Your task to perform on an android device: Toggle the flashlight Image 0: 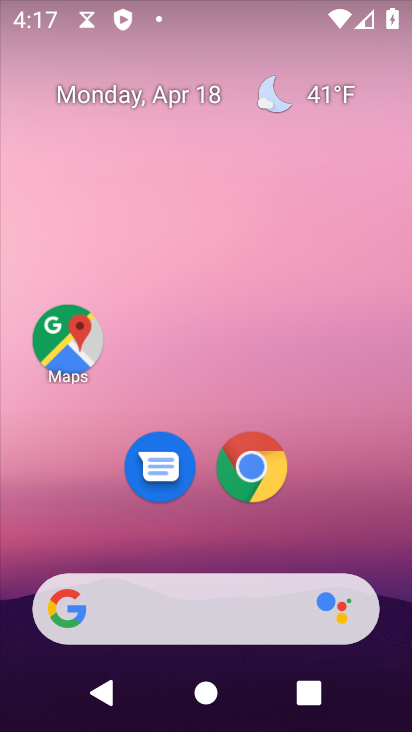
Step 0: drag from (199, 546) to (232, 154)
Your task to perform on an android device: Toggle the flashlight Image 1: 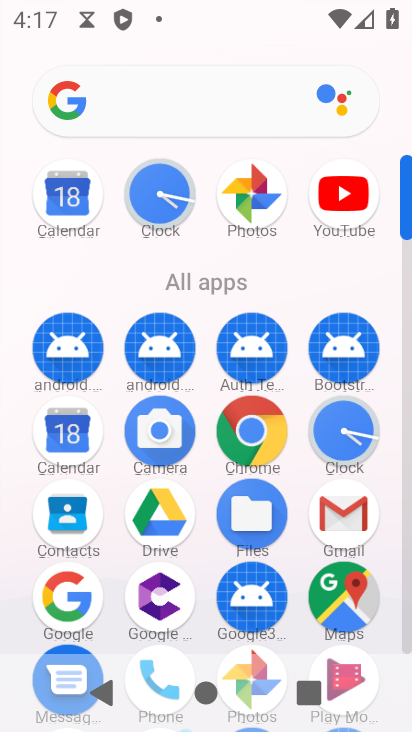
Step 1: drag from (197, 550) to (213, 284)
Your task to perform on an android device: Toggle the flashlight Image 2: 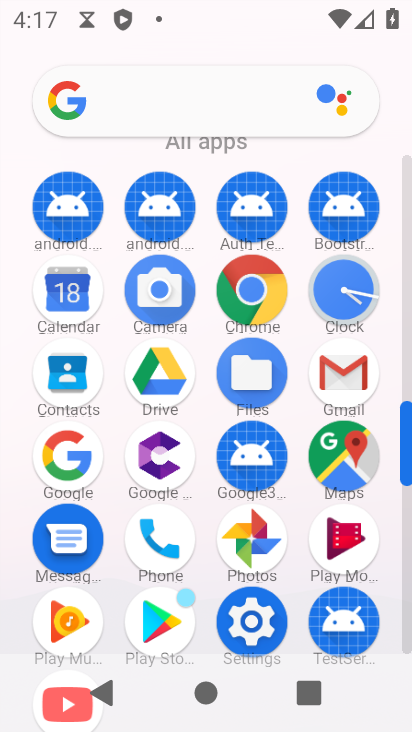
Step 2: click (216, 315)
Your task to perform on an android device: Toggle the flashlight Image 3: 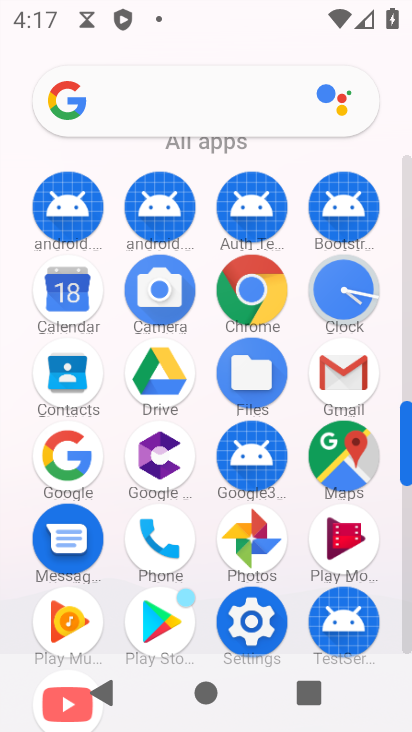
Step 3: drag from (204, 326) to (217, 185)
Your task to perform on an android device: Toggle the flashlight Image 4: 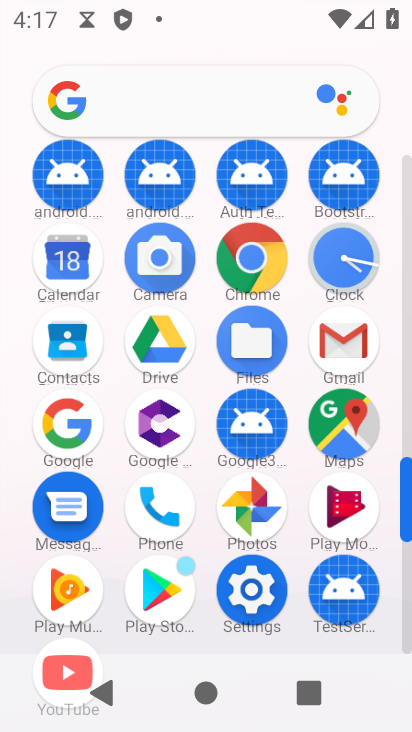
Step 4: drag from (215, 545) to (216, 359)
Your task to perform on an android device: Toggle the flashlight Image 5: 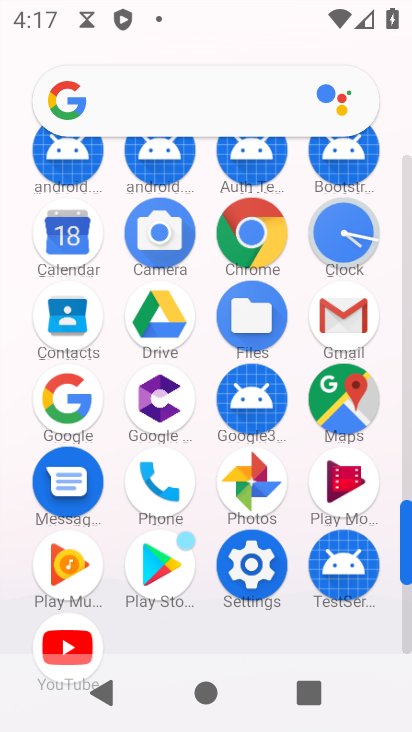
Step 5: click (219, 569)
Your task to perform on an android device: Toggle the flashlight Image 6: 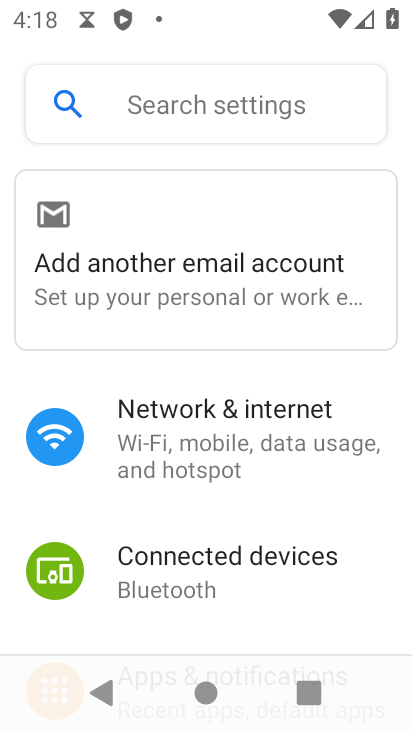
Step 6: task complete